Your task to perform on an android device: Open Chrome and go to the settings page Image 0: 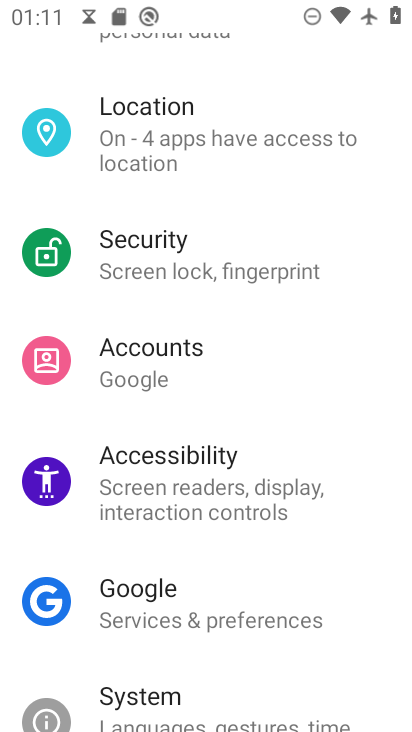
Step 0: press home button
Your task to perform on an android device: Open Chrome and go to the settings page Image 1: 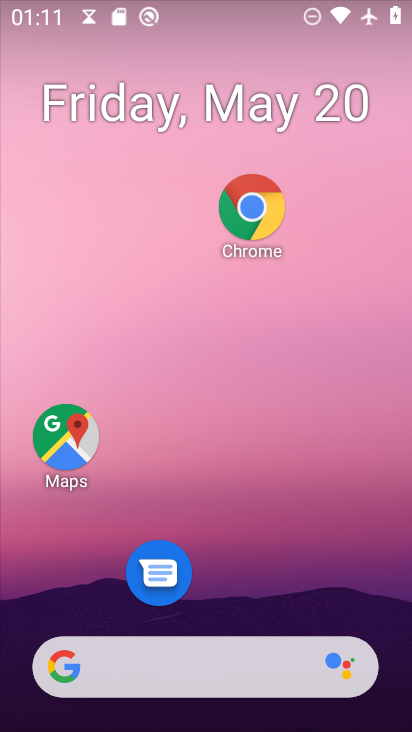
Step 1: click (262, 208)
Your task to perform on an android device: Open Chrome and go to the settings page Image 2: 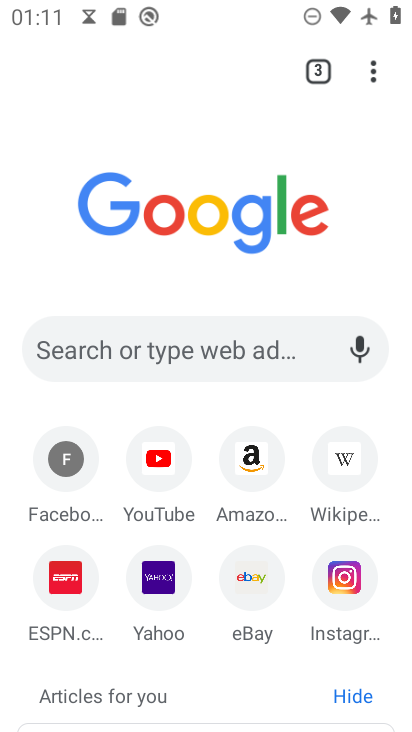
Step 2: click (371, 79)
Your task to perform on an android device: Open Chrome and go to the settings page Image 3: 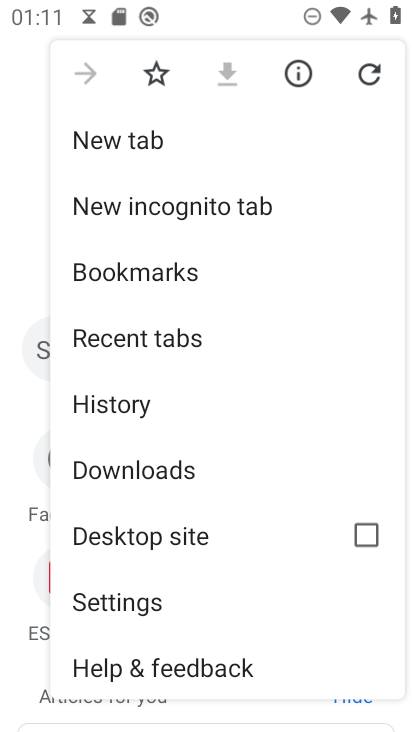
Step 3: click (150, 603)
Your task to perform on an android device: Open Chrome and go to the settings page Image 4: 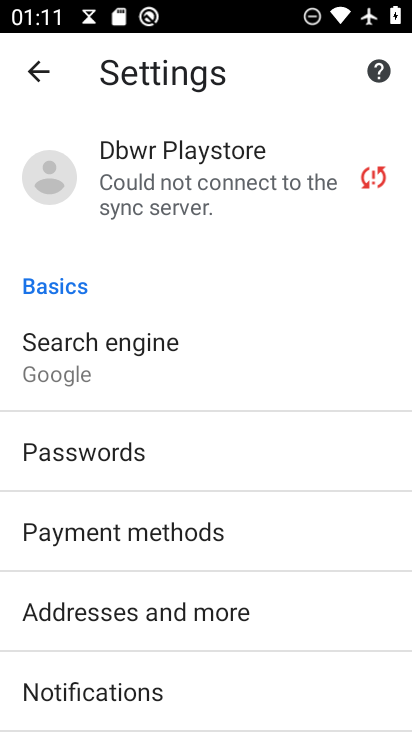
Step 4: task complete